Your task to perform on an android device: toggle data saver in the chrome app Image 0: 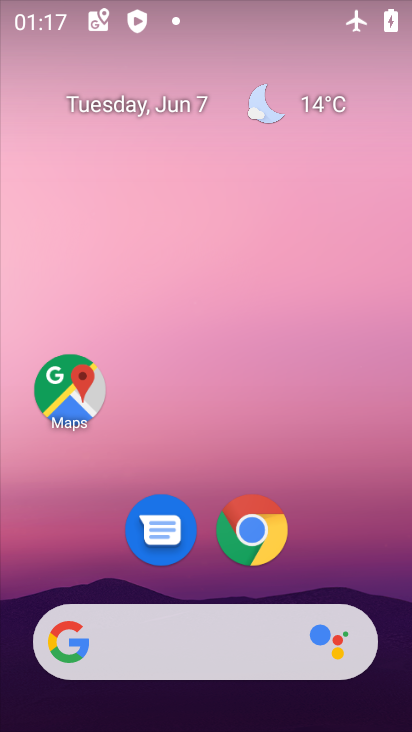
Step 0: click (262, 521)
Your task to perform on an android device: toggle data saver in the chrome app Image 1: 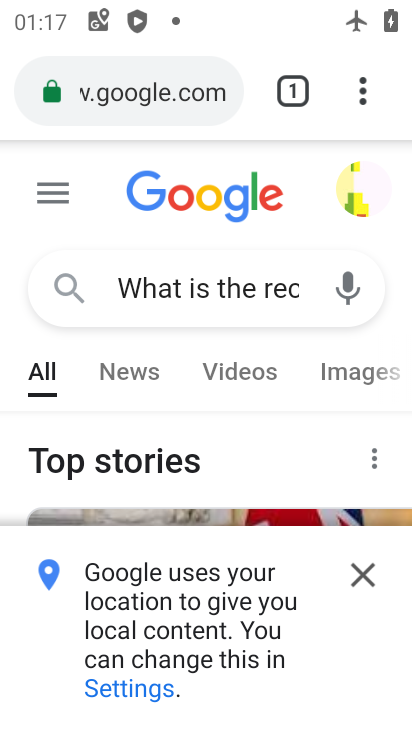
Step 1: click (366, 582)
Your task to perform on an android device: toggle data saver in the chrome app Image 2: 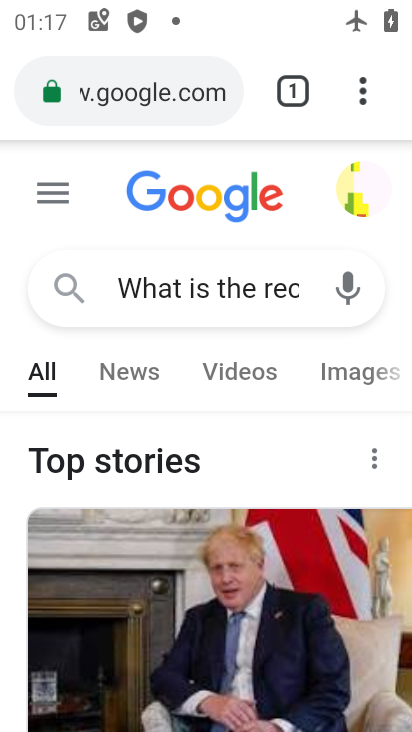
Step 2: click (362, 90)
Your task to perform on an android device: toggle data saver in the chrome app Image 3: 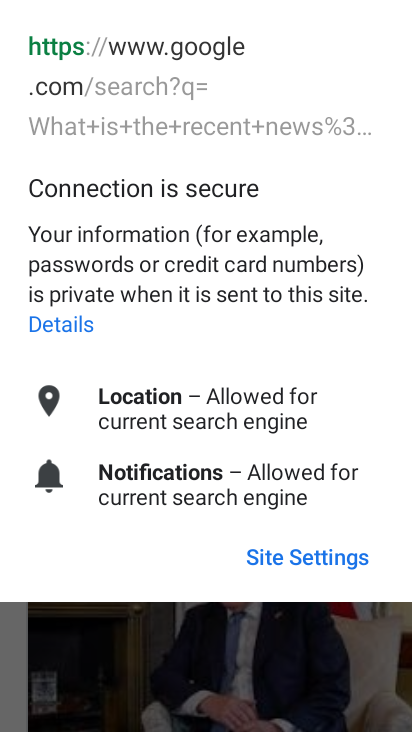
Step 3: press back button
Your task to perform on an android device: toggle data saver in the chrome app Image 4: 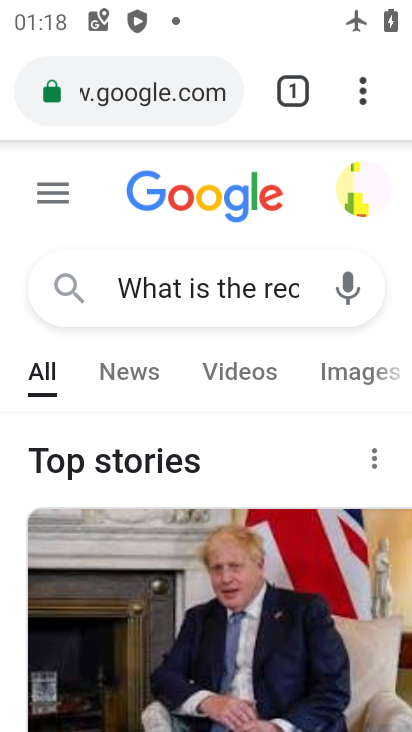
Step 4: click (378, 88)
Your task to perform on an android device: toggle data saver in the chrome app Image 5: 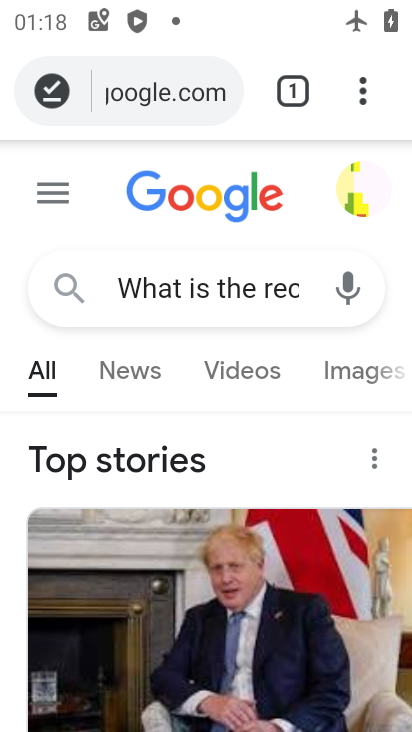
Step 5: click (361, 115)
Your task to perform on an android device: toggle data saver in the chrome app Image 6: 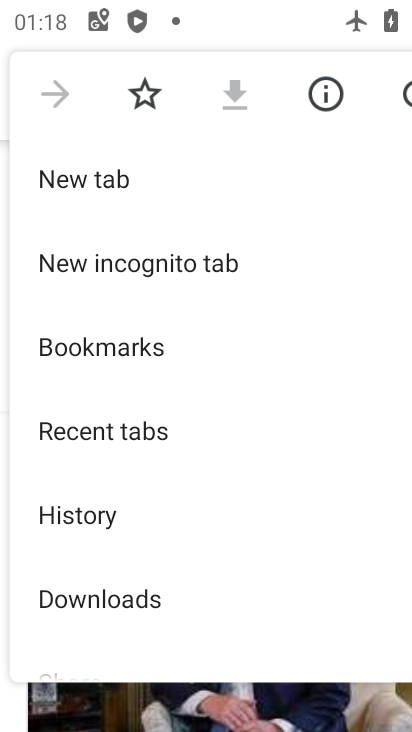
Step 6: drag from (223, 621) to (222, 229)
Your task to perform on an android device: toggle data saver in the chrome app Image 7: 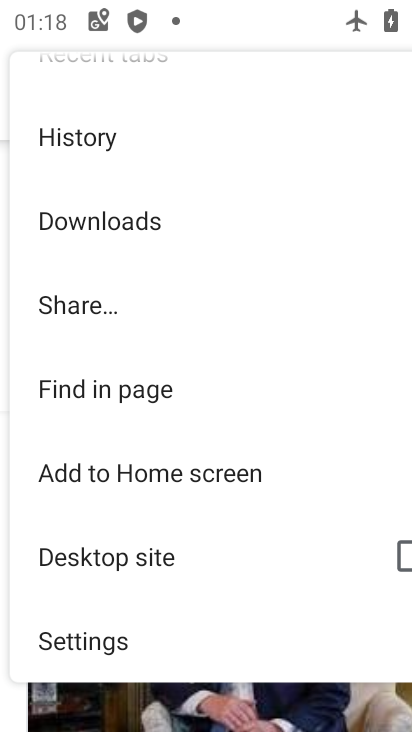
Step 7: click (138, 625)
Your task to perform on an android device: toggle data saver in the chrome app Image 8: 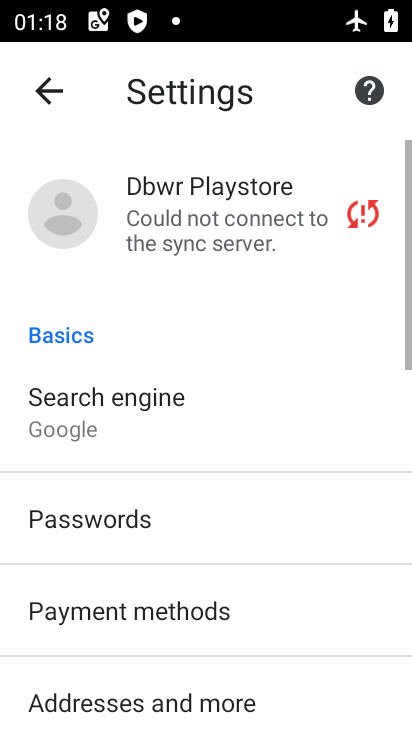
Step 8: drag from (211, 656) to (253, 206)
Your task to perform on an android device: toggle data saver in the chrome app Image 9: 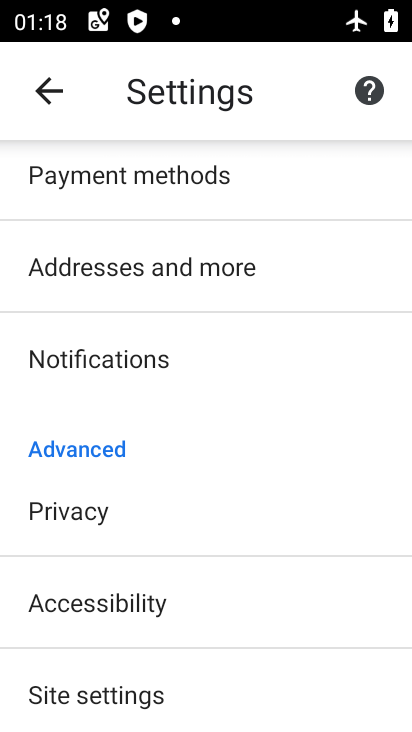
Step 9: drag from (199, 642) to (226, 211)
Your task to perform on an android device: toggle data saver in the chrome app Image 10: 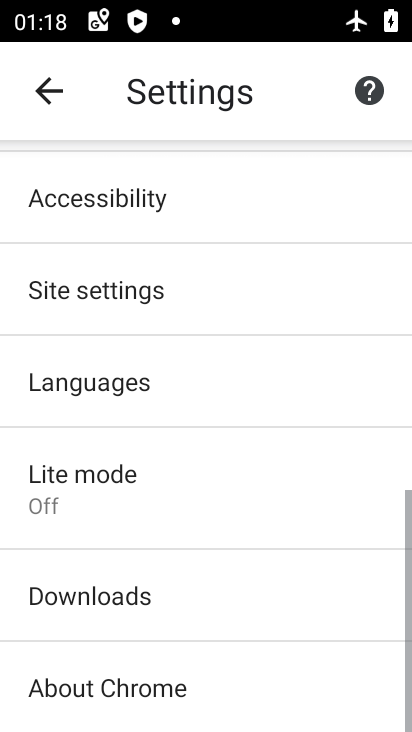
Step 10: click (149, 482)
Your task to perform on an android device: toggle data saver in the chrome app Image 11: 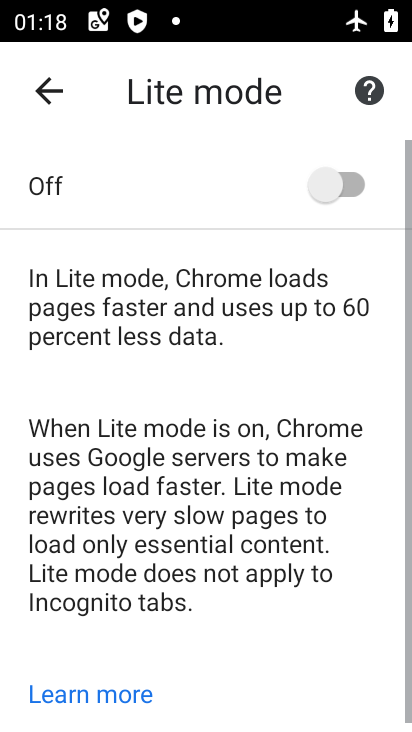
Step 11: click (351, 183)
Your task to perform on an android device: toggle data saver in the chrome app Image 12: 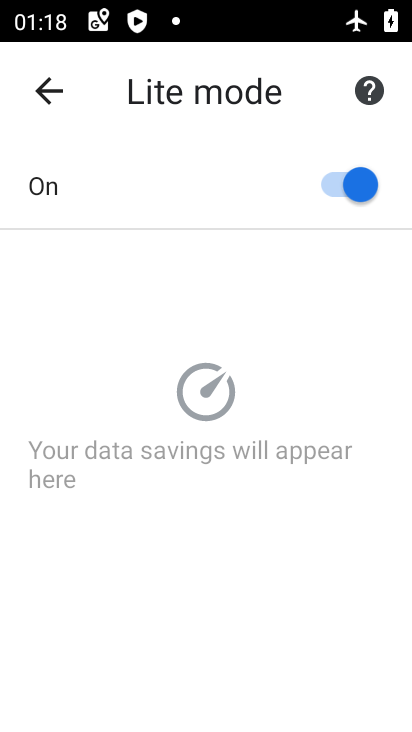
Step 12: task complete